Your task to perform on an android device: turn on sleep mode Image 0: 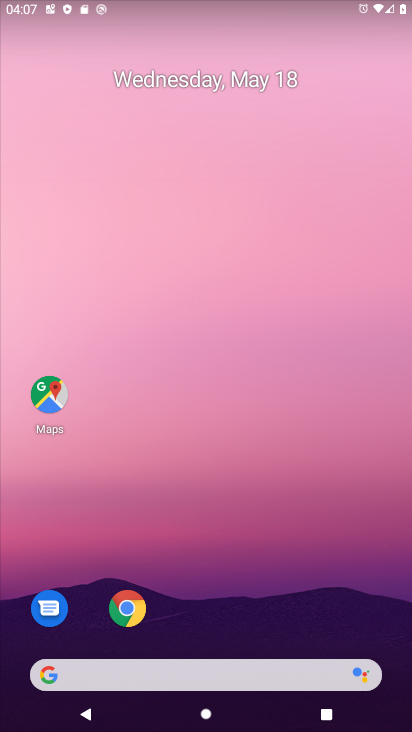
Step 0: drag from (203, 606) to (282, 165)
Your task to perform on an android device: turn on sleep mode Image 1: 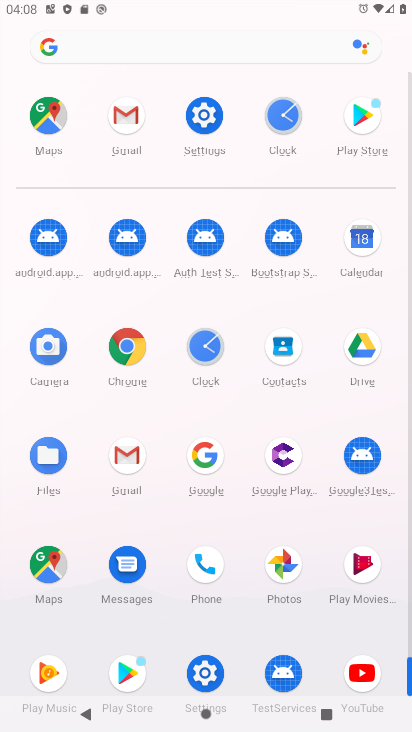
Step 1: click (208, 126)
Your task to perform on an android device: turn on sleep mode Image 2: 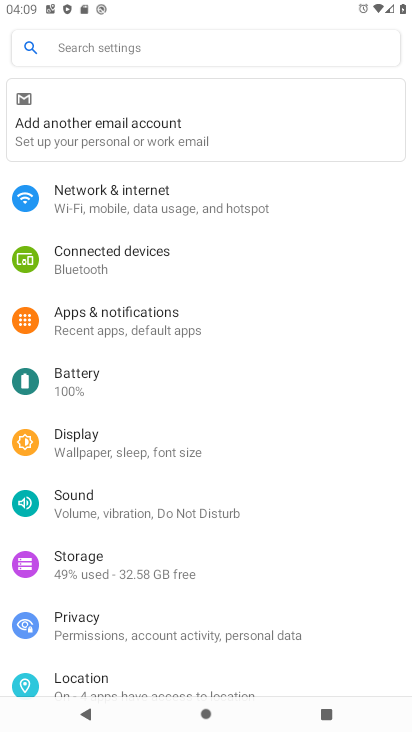
Step 2: task complete